Your task to perform on an android device: When is my next meeting? Image 0: 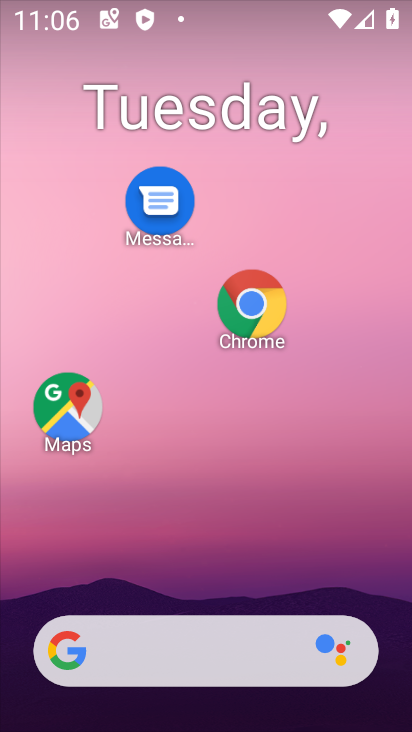
Step 0: drag from (188, 556) to (236, 177)
Your task to perform on an android device: When is my next meeting? Image 1: 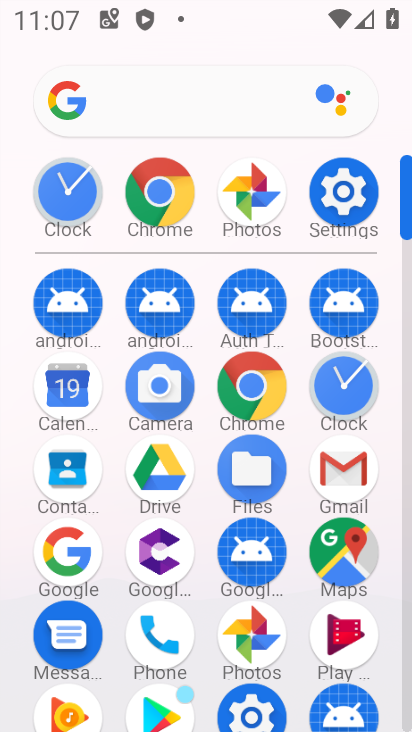
Step 1: click (61, 395)
Your task to perform on an android device: When is my next meeting? Image 2: 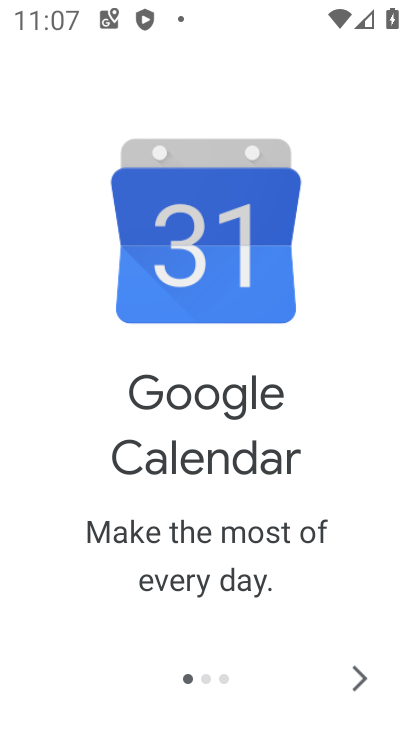
Step 2: click (352, 682)
Your task to perform on an android device: When is my next meeting? Image 3: 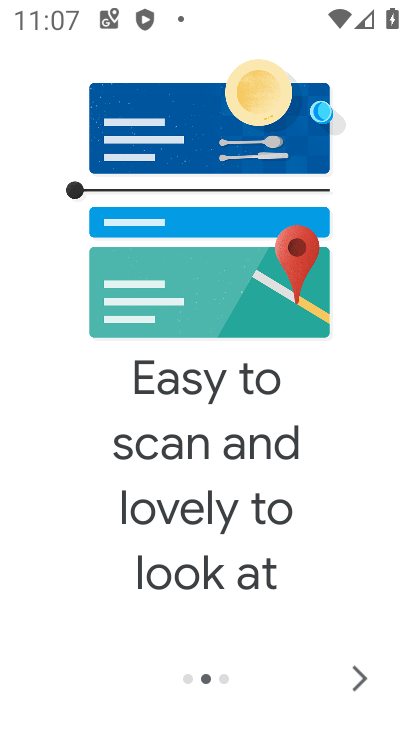
Step 3: click (352, 682)
Your task to perform on an android device: When is my next meeting? Image 4: 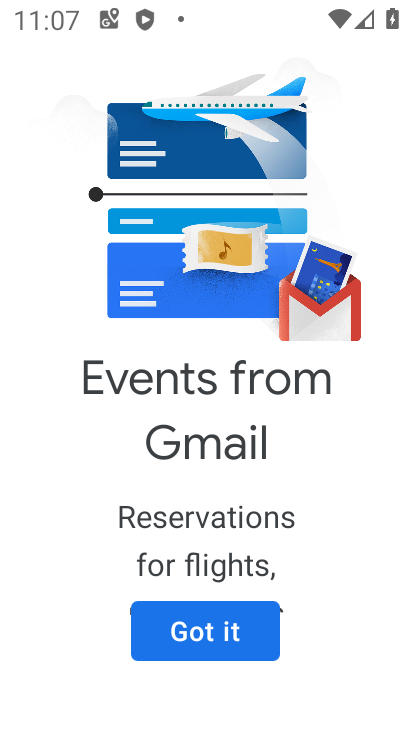
Step 4: click (217, 643)
Your task to perform on an android device: When is my next meeting? Image 5: 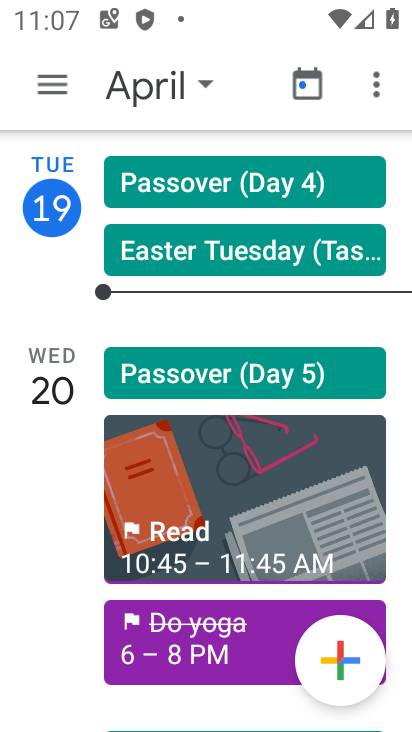
Step 5: drag from (166, 619) to (176, 411)
Your task to perform on an android device: When is my next meeting? Image 6: 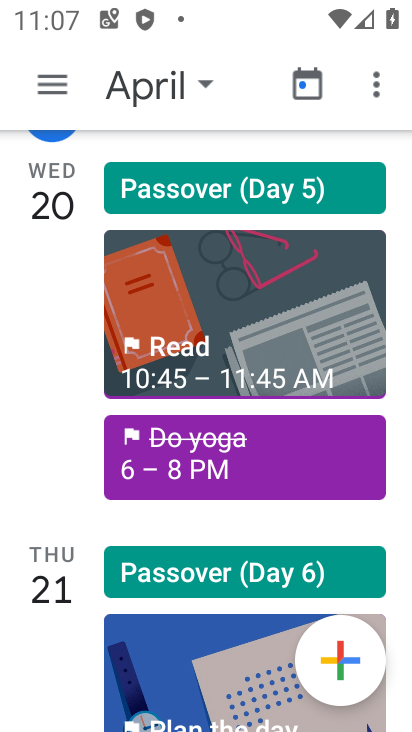
Step 6: click (182, 438)
Your task to perform on an android device: When is my next meeting? Image 7: 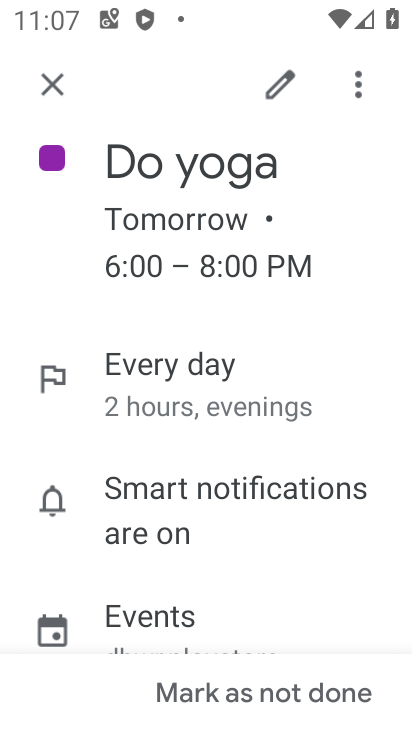
Step 7: task complete